Your task to perform on an android device: Do I have any events tomorrow? Image 0: 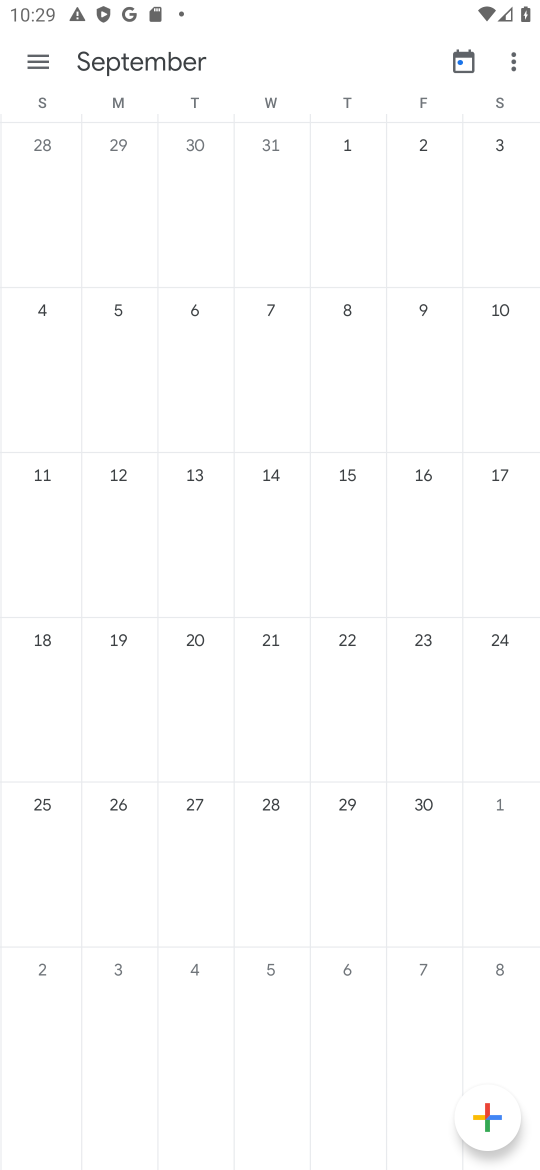
Step 0: drag from (126, 579) to (528, 485)
Your task to perform on an android device: Do I have any events tomorrow? Image 1: 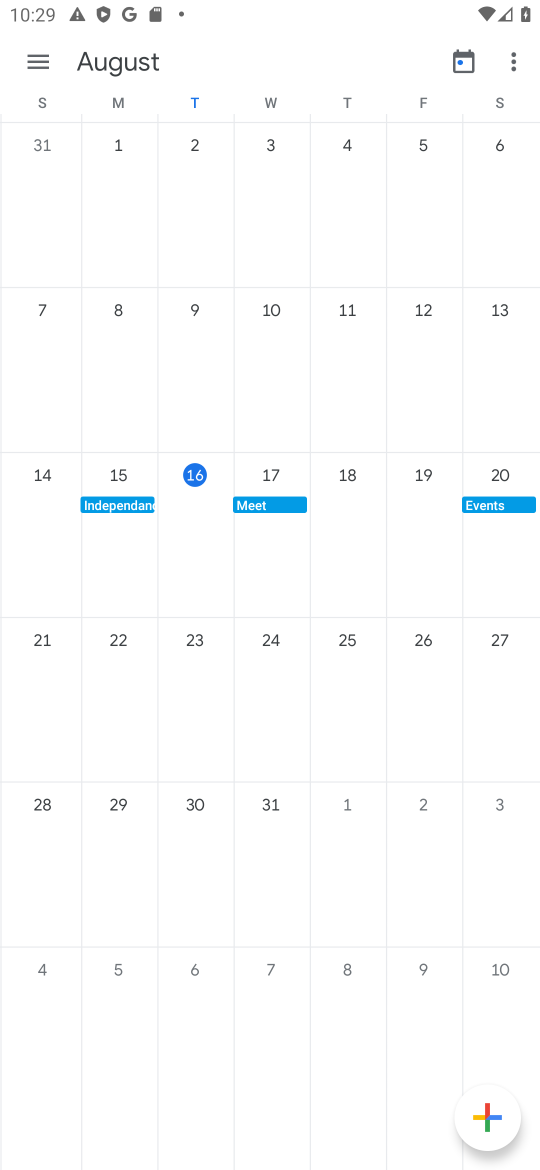
Step 1: click (36, 73)
Your task to perform on an android device: Do I have any events tomorrow? Image 2: 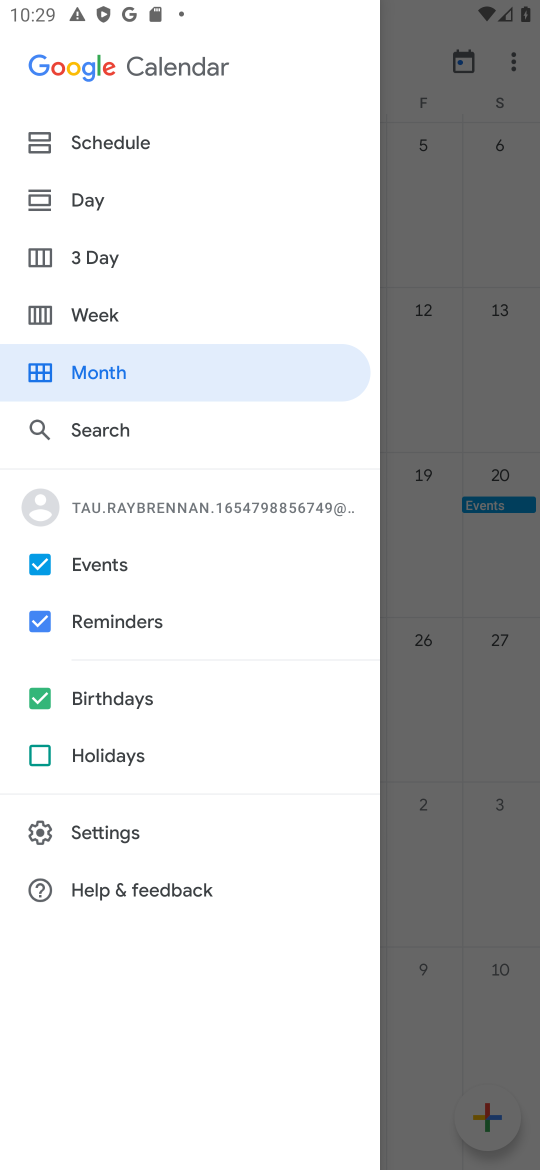
Step 2: click (94, 129)
Your task to perform on an android device: Do I have any events tomorrow? Image 3: 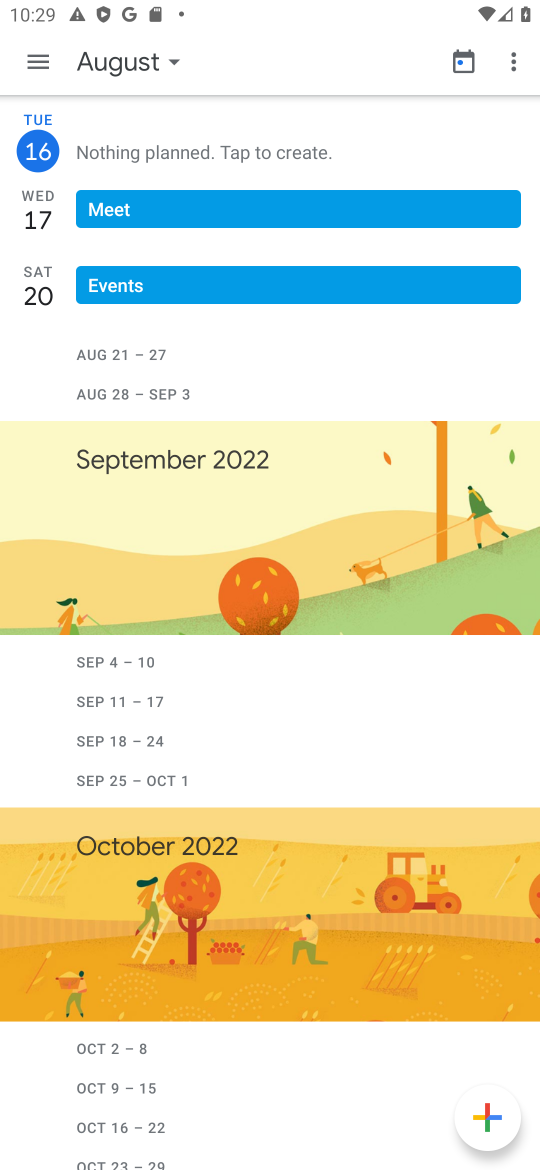
Step 3: task complete